Your task to perform on an android device: turn notification dots on Image 0: 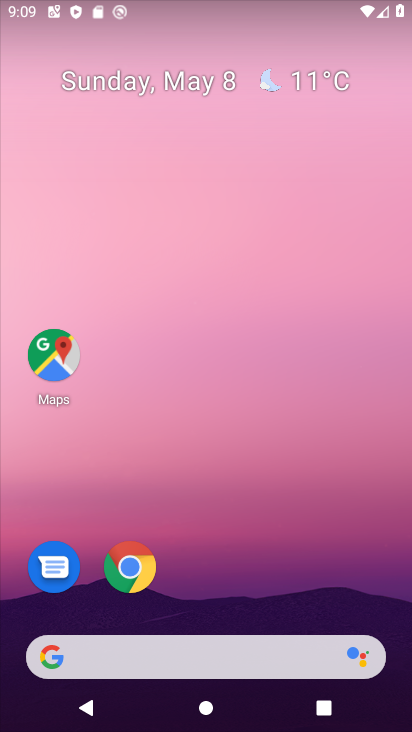
Step 0: drag from (203, 529) to (280, 72)
Your task to perform on an android device: turn notification dots on Image 1: 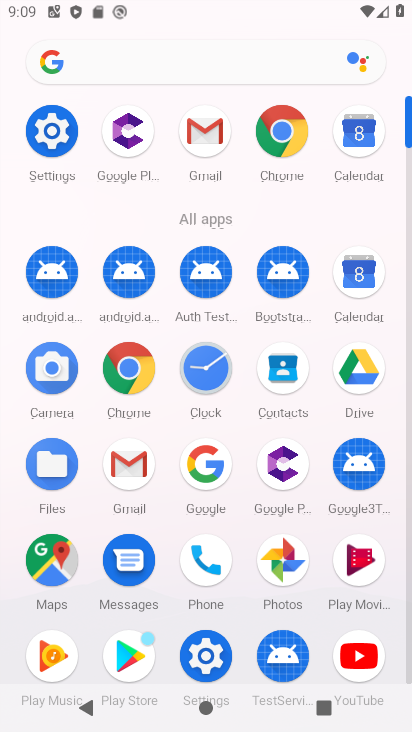
Step 1: click (57, 129)
Your task to perform on an android device: turn notification dots on Image 2: 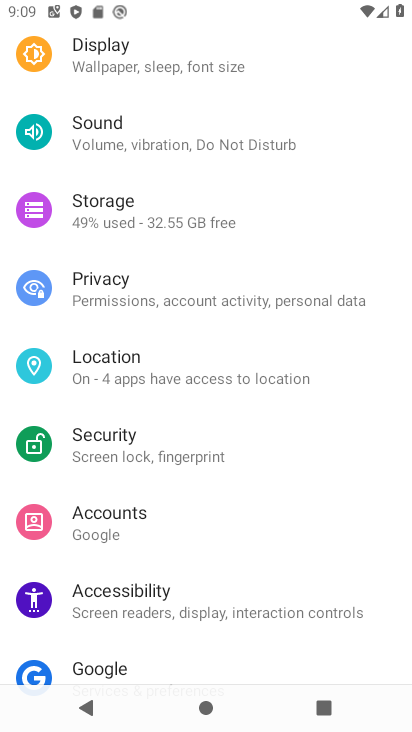
Step 2: drag from (209, 101) to (209, 565)
Your task to perform on an android device: turn notification dots on Image 3: 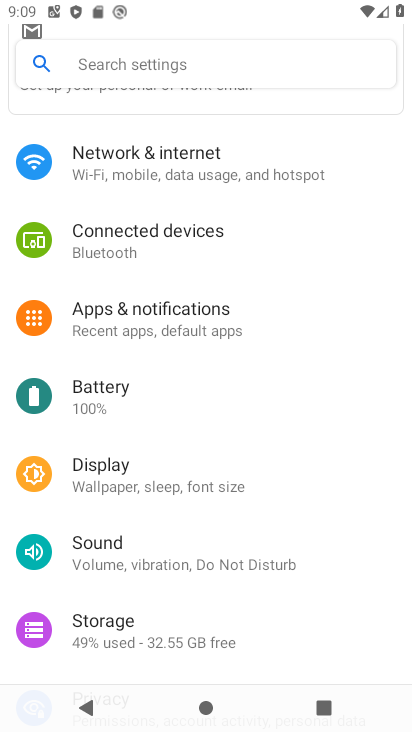
Step 3: click (172, 314)
Your task to perform on an android device: turn notification dots on Image 4: 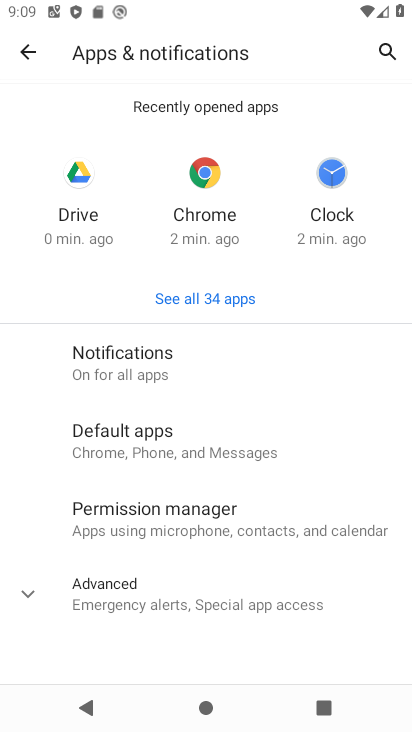
Step 4: drag from (195, 590) to (271, 137)
Your task to perform on an android device: turn notification dots on Image 5: 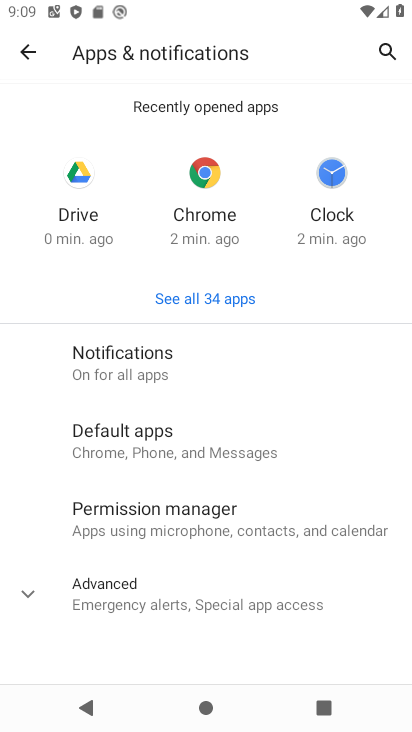
Step 5: click (166, 356)
Your task to perform on an android device: turn notification dots on Image 6: 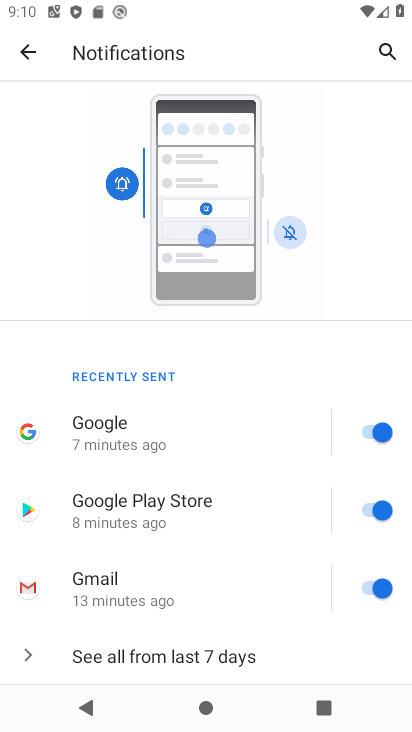
Step 6: drag from (179, 571) to (276, 39)
Your task to perform on an android device: turn notification dots on Image 7: 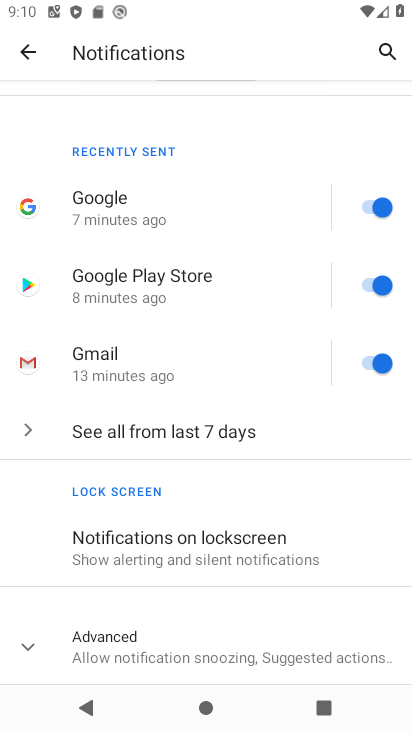
Step 7: drag from (196, 636) to (267, 215)
Your task to perform on an android device: turn notification dots on Image 8: 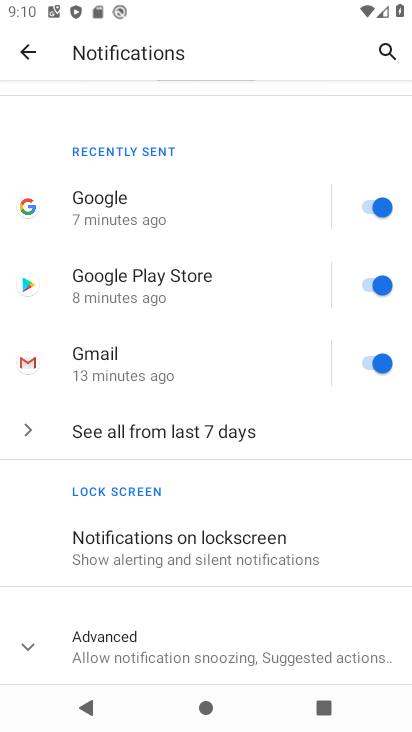
Step 8: click (192, 645)
Your task to perform on an android device: turn notification dots on Image 9: 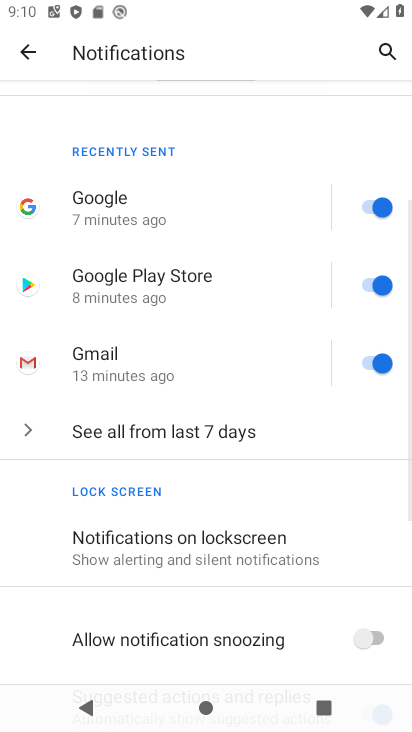
Step 9: task complete